Your task to perform on an android device: check android version Image 0: 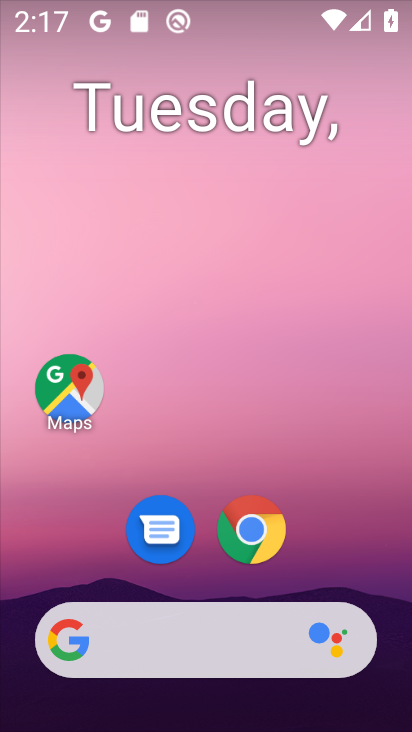
Step 0: drag from (364, 154) to (360, 60)
Your task to perform on an android device: check android version Image 1: 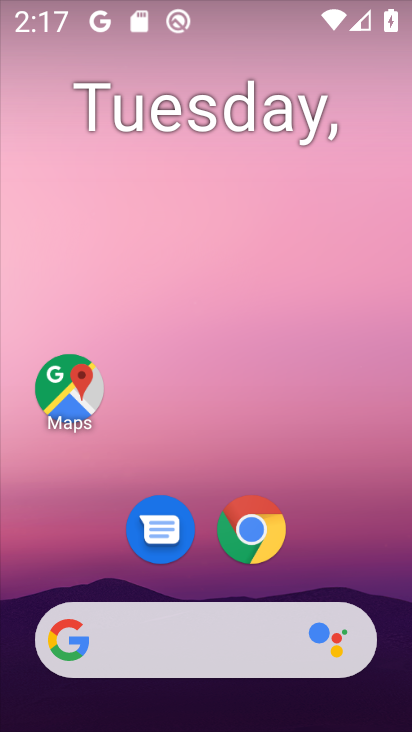
Step 1: click (363, 55)
Your task to perform on an android device: check android version Image 2: 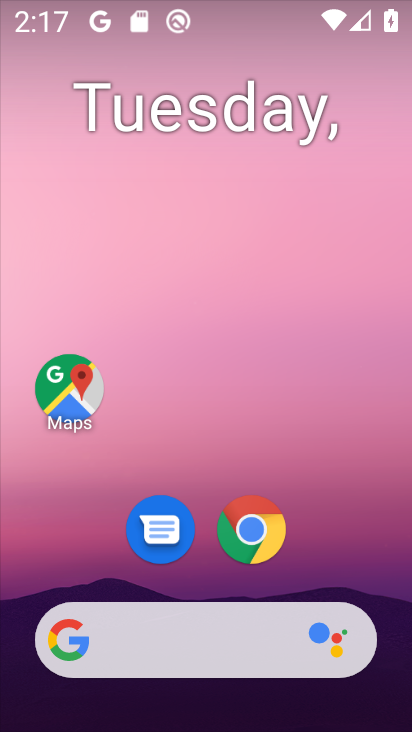
Step 2: drag from (392, 409) to (378, 154)
Your task to perform on an android device: check android version Image 3: 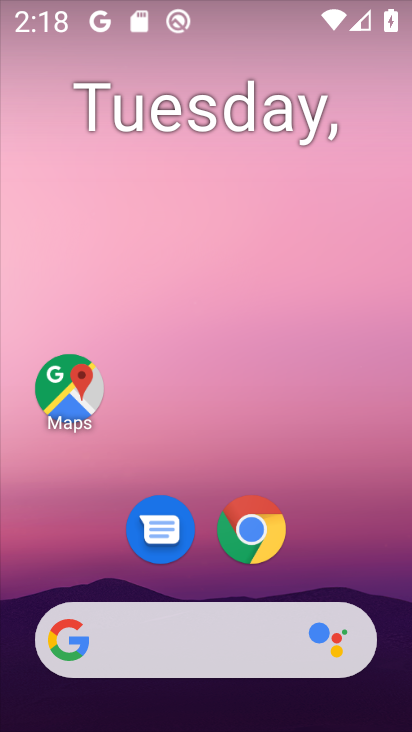
Step 3: drag from (397, 590) to (339, 107)
Your task to perform on an android device: check android version Image 4: 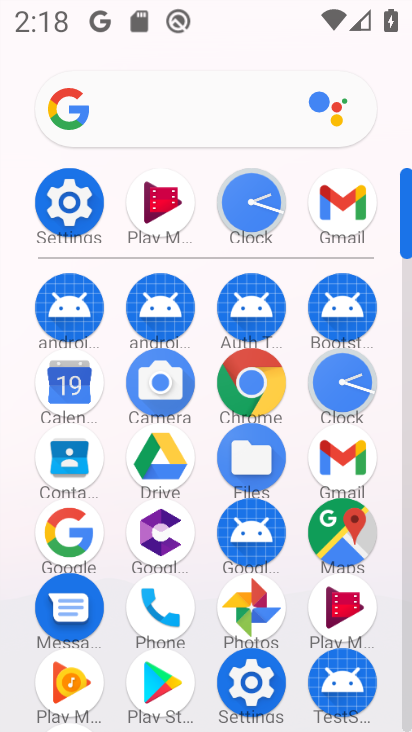
Step 4: click (68, 187)
Your task to perform on an android device: check android version Image 5: 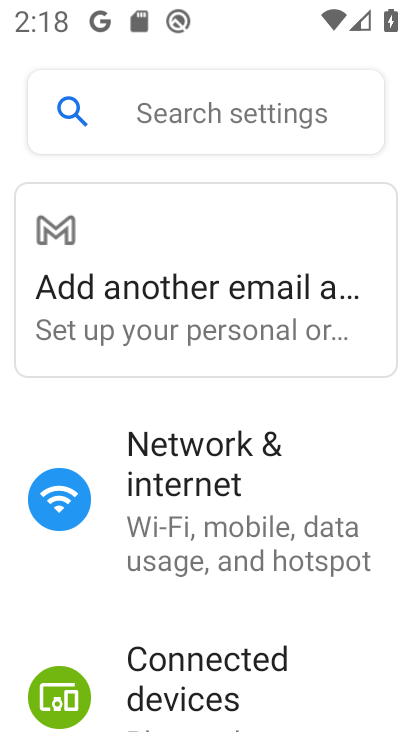
Step 5: drag from (362, 663) to (347, 287)
Your task to perform on an android device: check android version Image 6: 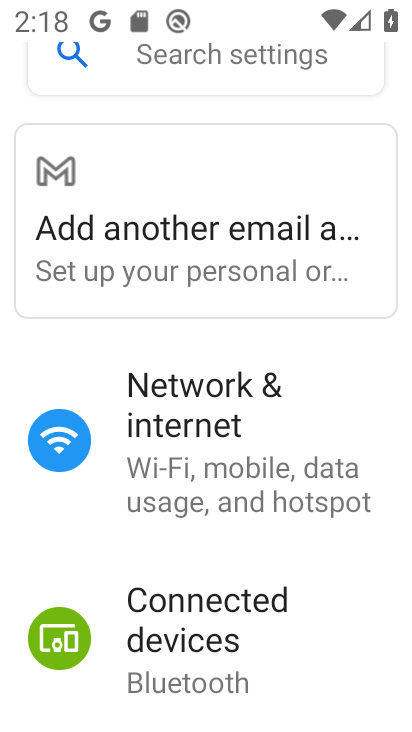
Step 6: drag from (315, 277) to (308, 206)
Your task to perform on an android device: check android version Image 7: 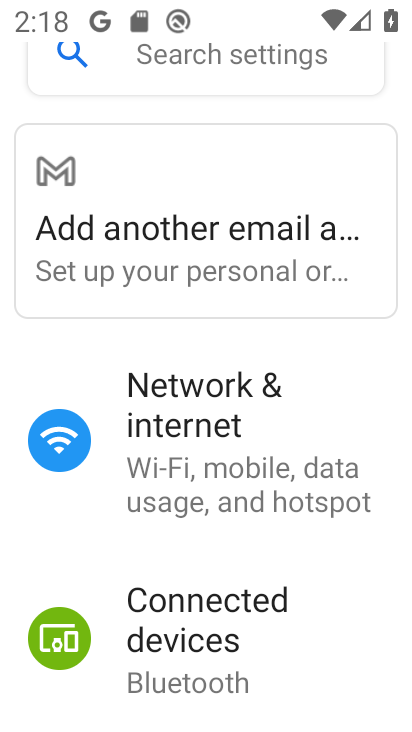
Step 7: drag from (329, 664) to (325, 258)
Your task to perform on an android device: check android version Image 8: 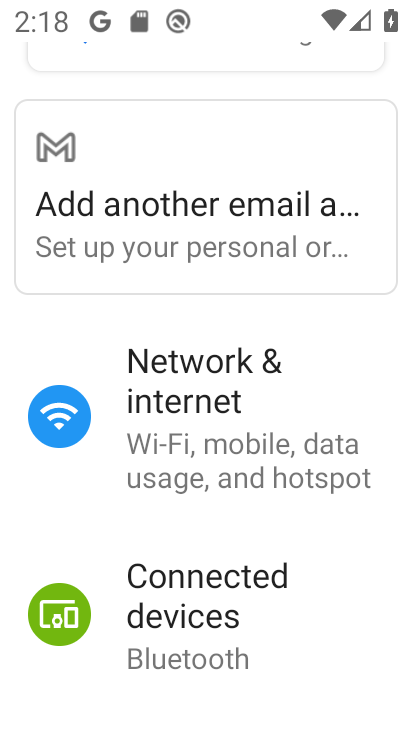
Step 8: drag from (348, 659) to (315, 245)
Your task to perform on an android device: check android version Image 9: 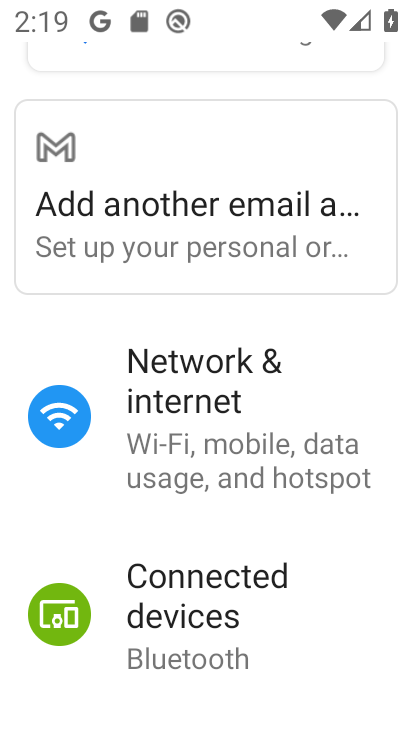
Step 9: drag from (381, 686) to (368, 212)
Your task to perform on an android device: check android version Image 10: 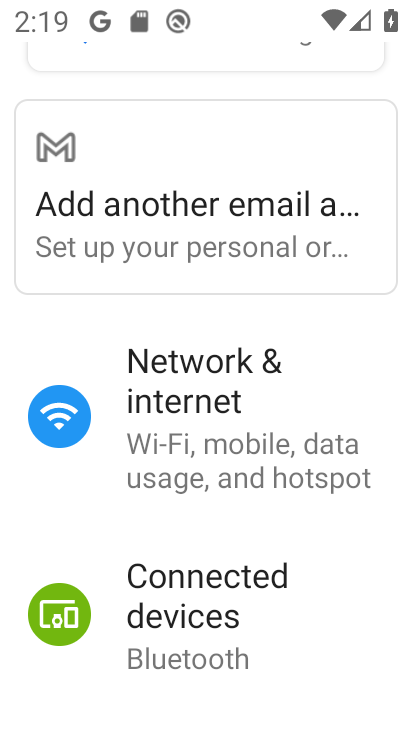
Step 10: drag from (341, 621) to (379, 182)
Your task to perform on an android device: check android version Image 11: 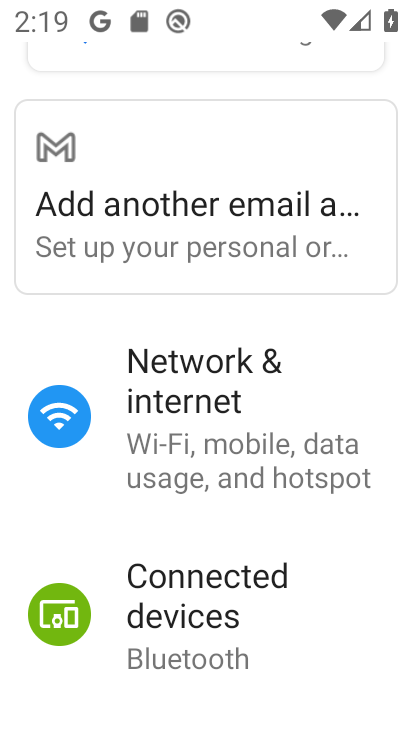
Step 11: drag from (342, 668) to (318, 165)
Your task to perform on an android device: check android version Image 12: 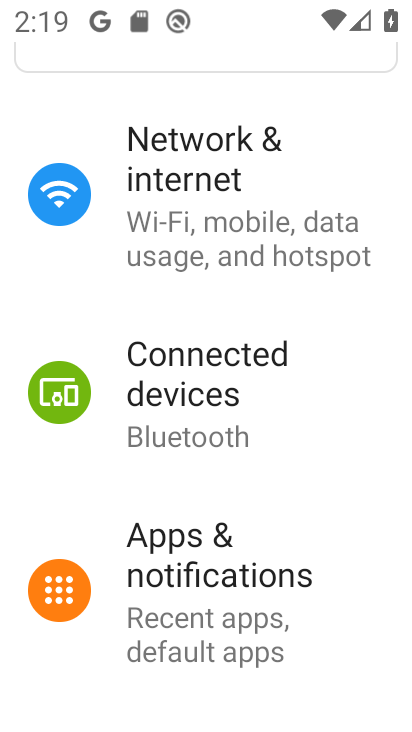
Step 12: drag from (315, 627) to (368, 172)
Your task to perform on an android device: check android version Image 13: 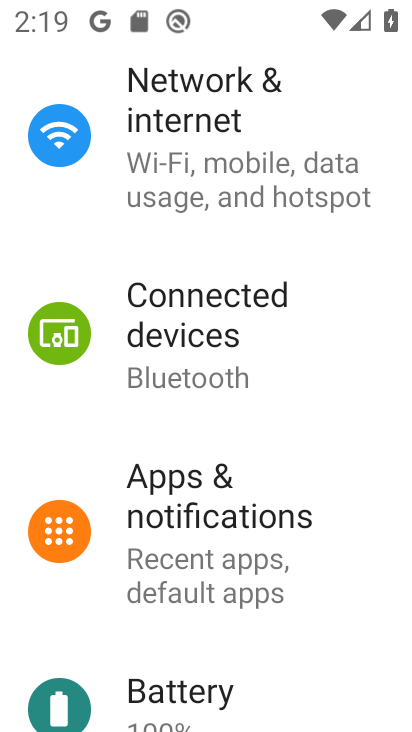
Step 13: drag from (319, 643) to (345, 215)
Your task to perform on an android device: check android version Image 14: 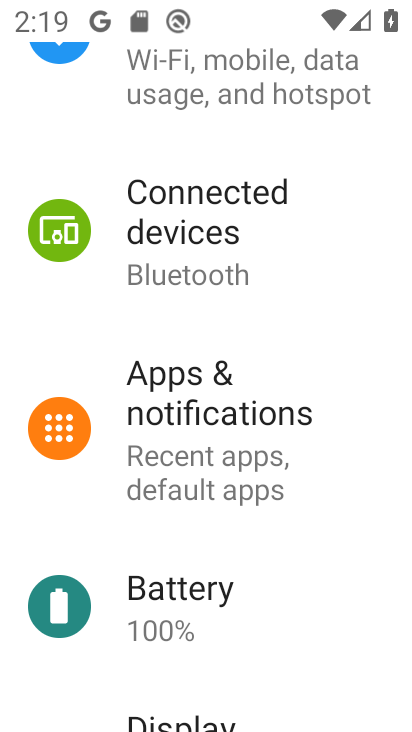
Step 14: drag from (334, 437) to (336, 269)
Your task to perform on an android device: check android version Image 15: 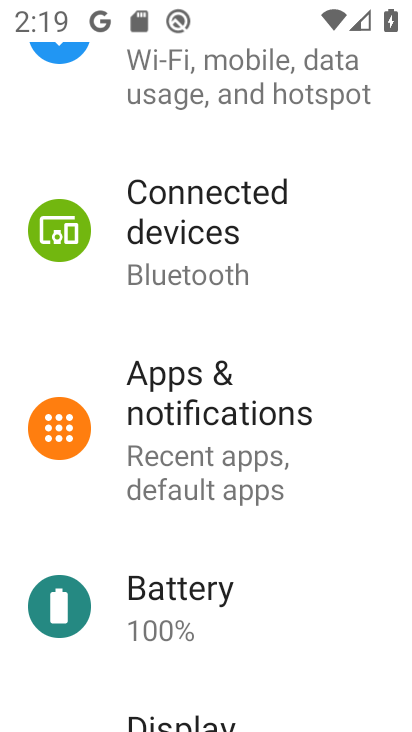
Step 15: drag from (367, 676) to (349, 170)
Your task to perform on an android device: check android version Image 16: 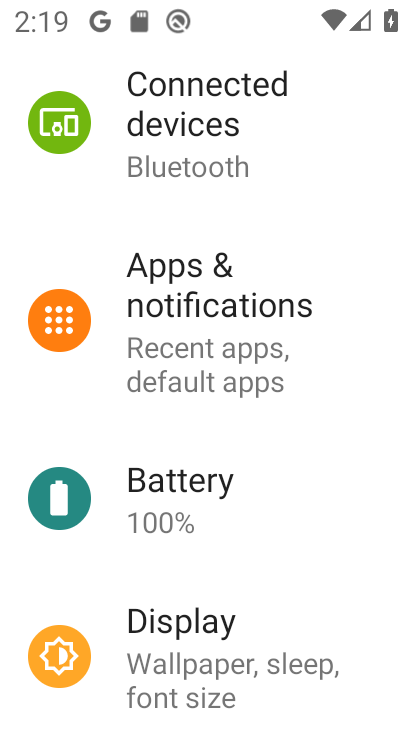
Step 16: drag from (379, 614) to (402, 116)
Your task to perform on an android device: check android version Image 17: 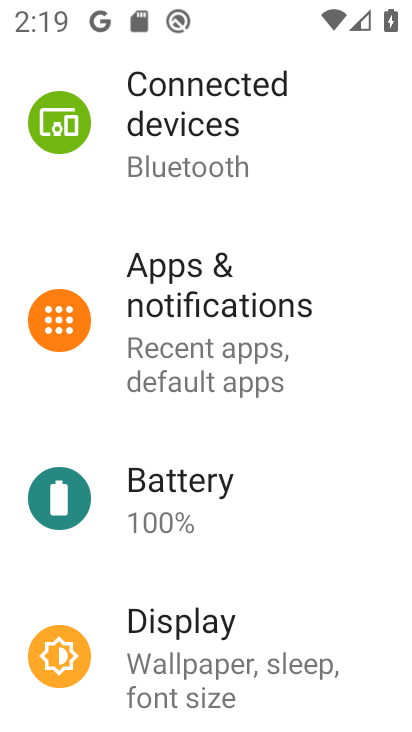
Step 17: drag from (337, 349) to (325, 28)
Your task to perform on an android device: check android version Image 18: 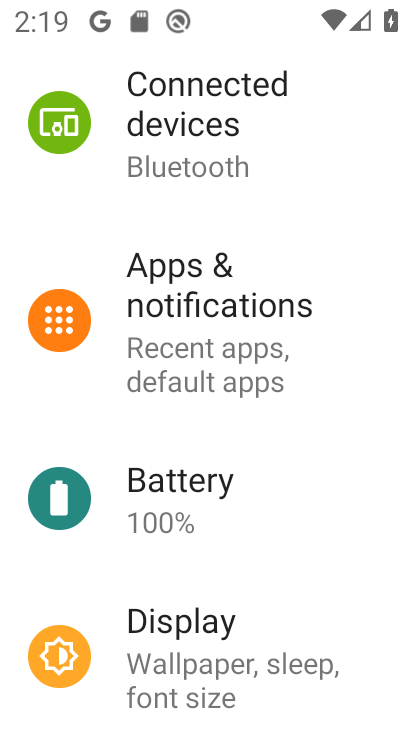
Step 18: drag from (330, 190) to (326, 142)
Your task to perform on an android device: check android version Image 19: 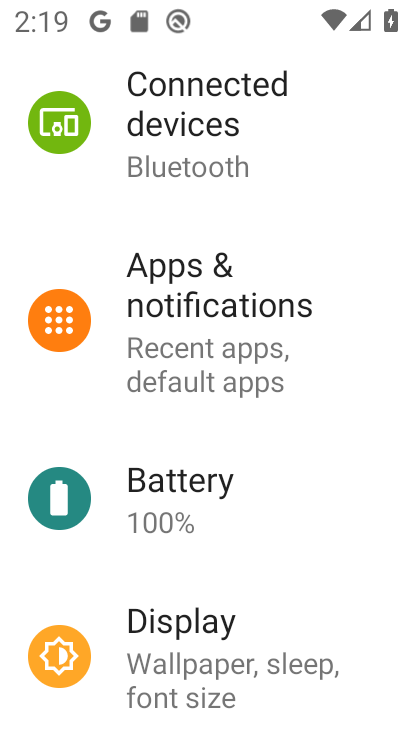
Step 19: drag from (346, 643) to (346, 330)
Your task to perform on an android device: check android version Image 20: 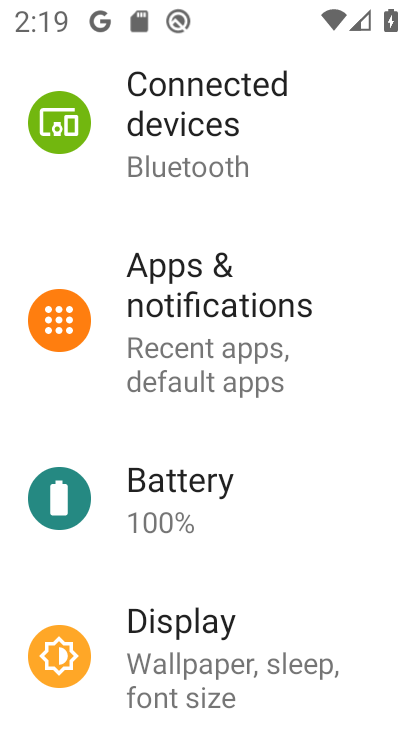
Step 20: drag from (362, 654) to (383, 99)
Your task to perform on an android device: check android version Image 21: 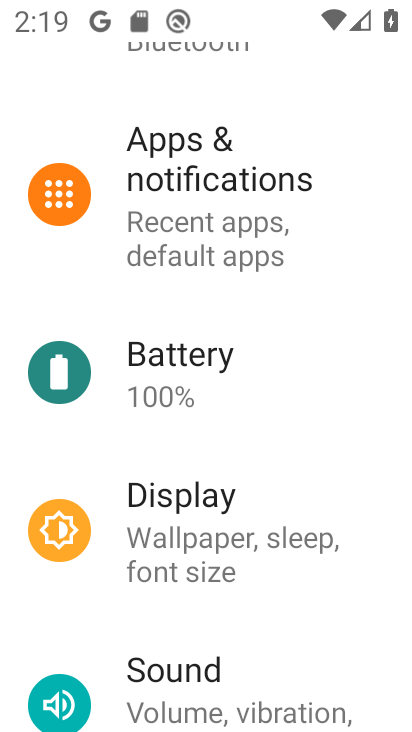
Step 21: drag from (361, 541) to (337, 204)
Your task to perform on an android device: check android version Image 22: 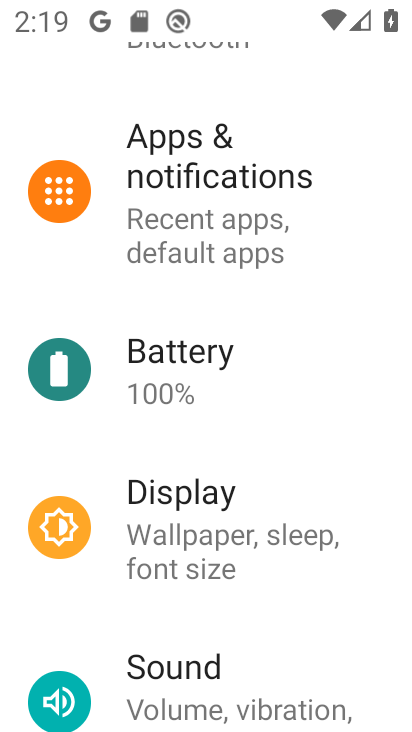
Step 22: drag from (323, 639) to (337, 237)
Your task to perform on an android device: check android version Image 23: 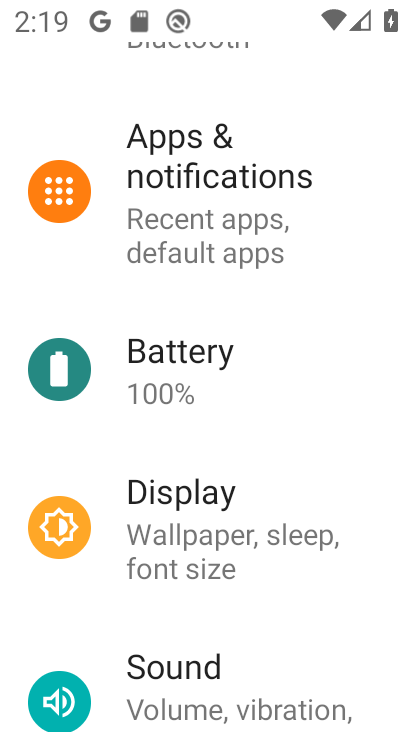
Step 23: drag from (361, 584) to (345, 121)
Your task to perform on an android device: check android version Image 24: 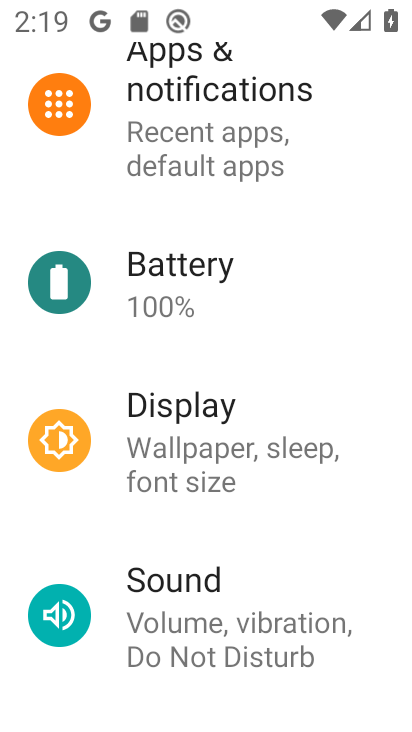
Step 24: drag from (376, 374) to (377, 102)
Your task to perform on an android device: check android version Image 25: 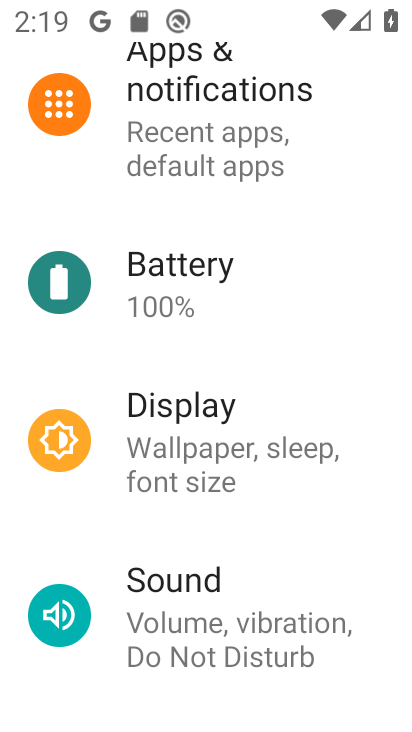
Step 25: drag from (362, 546) to (379, 145)
Your task to perform on an android device: check android version Image 26: 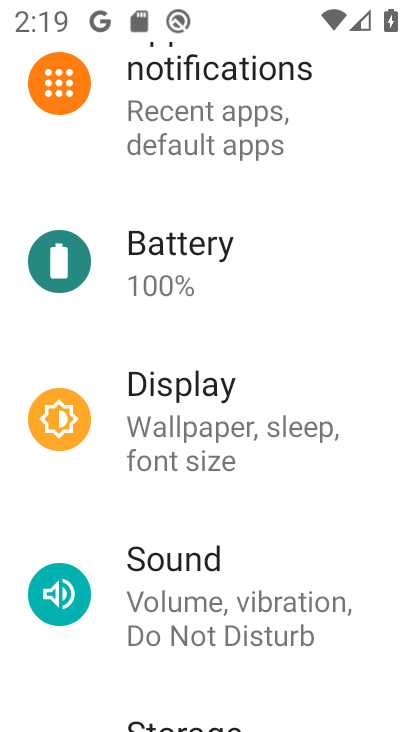
Step 26: drag from (369, 378) to (378, 175)
Your task to perform on an android device: check android version Image 27: 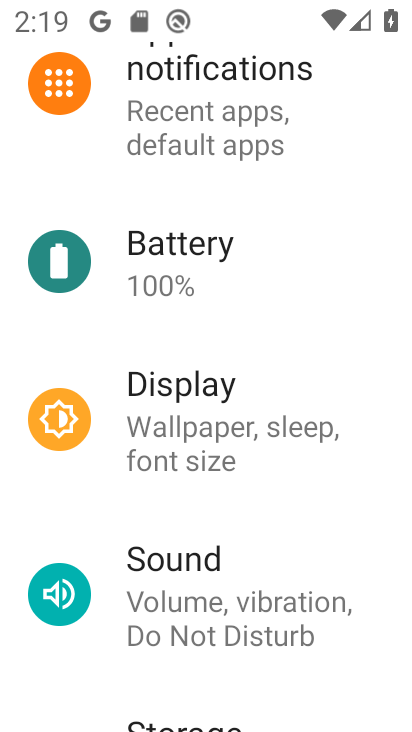
Step 27: drag from (339, 684) to (353, 245)
Your task to perform on an android device: check android version Image 28: 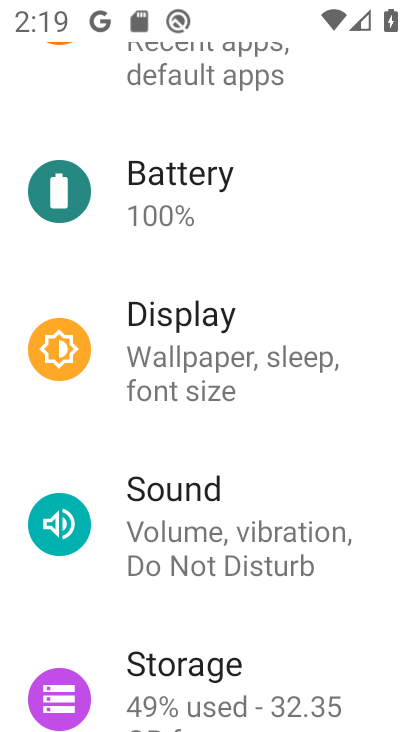
Step 28: drag from (376, 559) to (369, 218)
Your task to perform on an android device: check android version Image 29: 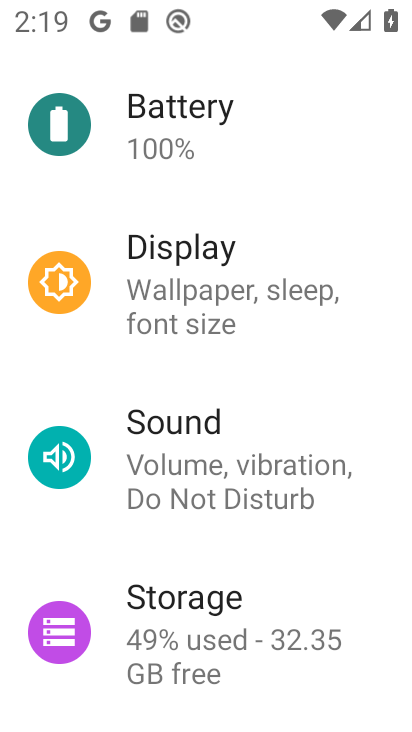
Step 29: drag from (367, 665) to (337, 279)
Your task to perform on an android device: check android version Image 30: 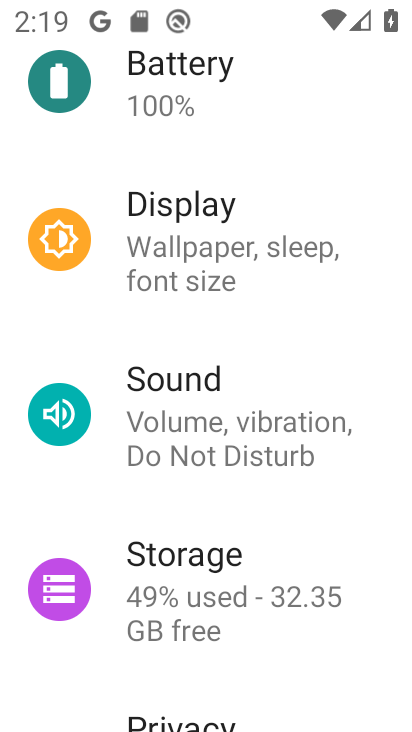
Step 30: drag from (366, 370) to (362, 220)
Your task to perform on an android device: check android version Image 31: 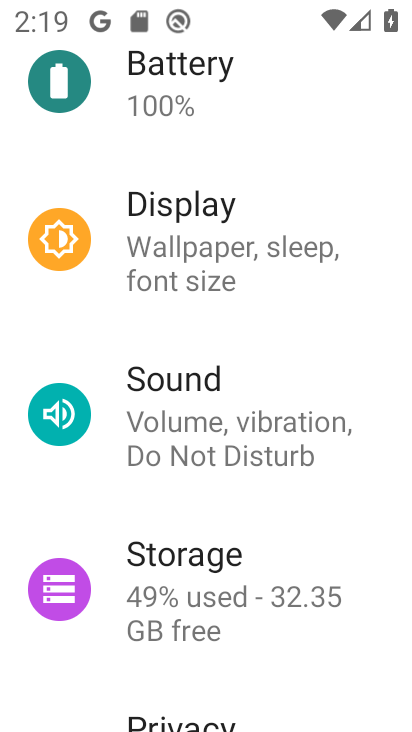
Step 31: drag from (373, 625) to (355, 149)
Your task to perform on an android device: check android version Image 32: 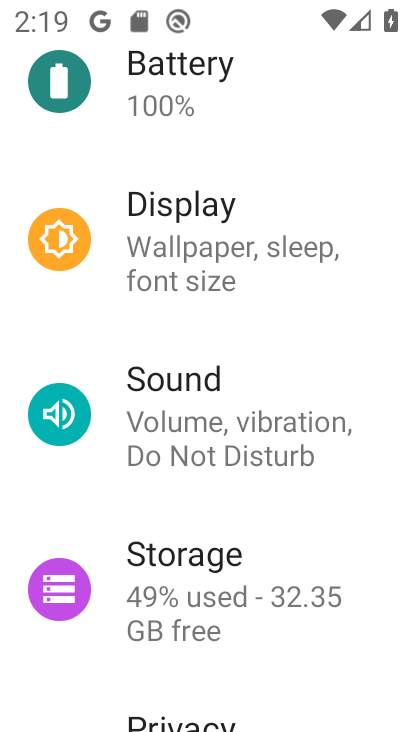
Step 32: drag from (361, 696) to (358, 235)
Your task to perform on an android device: check android version Image 33: 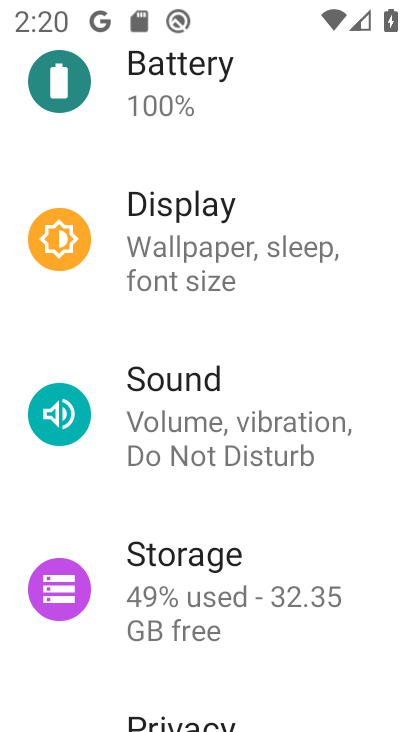
Step 33: drag from (360, 643) to (330, 187)
Your task to perform on an android device: check android version Image 34: 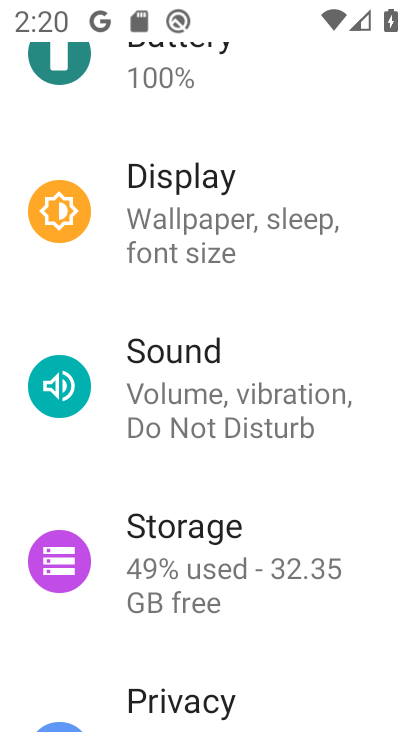
Step 34: drag from (376, 669) to (312, 161)
Your task to perform on an android device: check android version Image 35: 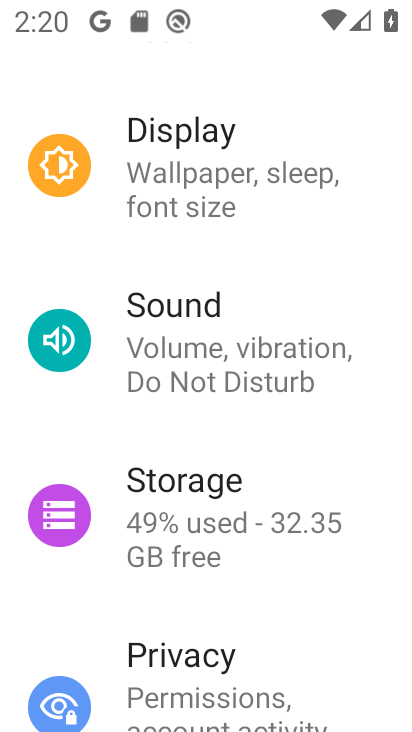
Step 35: drag from (349, 410) to (329, 135)
Your task to perform on an android device: check android version Image 36: 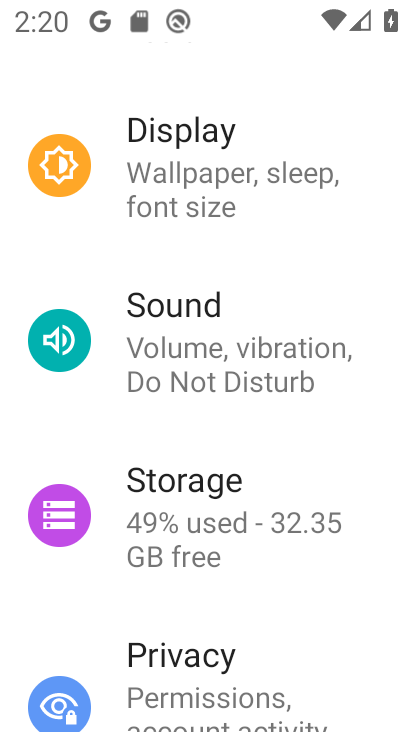
Step 36: drag from (356, 620) to (344, 149)
Your task to perform on an android device: check android version Image 37: 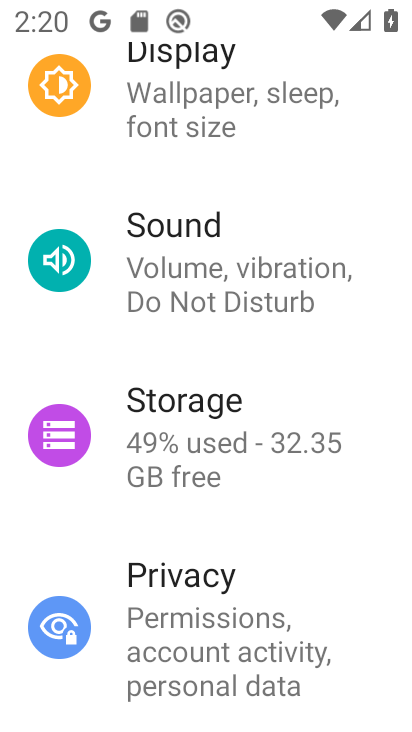
Step 37: drag from (346, 508) to (314, 215)
Your task to perform on an android device: check android version Image 38: 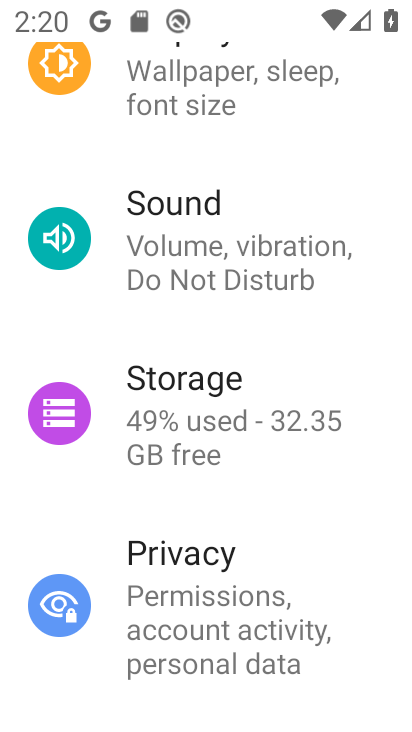
Step 38: drag from (343, 350) to (329, 167)
Your task to perform on an android device: check android version Image 39: 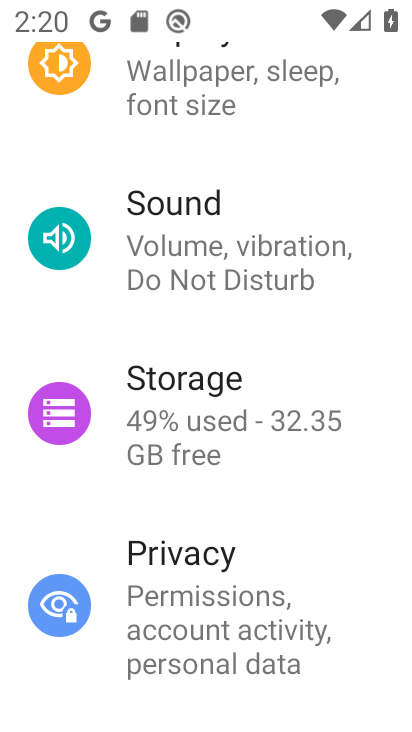
Step 39: drag from (347, 606) to (311, 135)
Your task to perform on an android device: check android version Image 40: 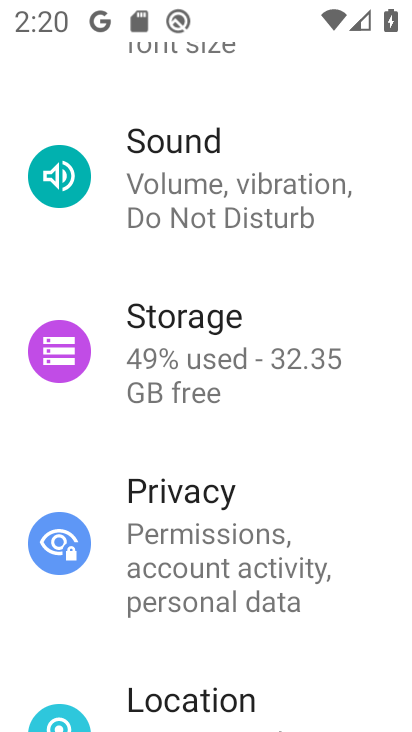
Step 40: drag from (353, 614) to (316, 174)
Your task to perform on an android device: check android version Image 41: 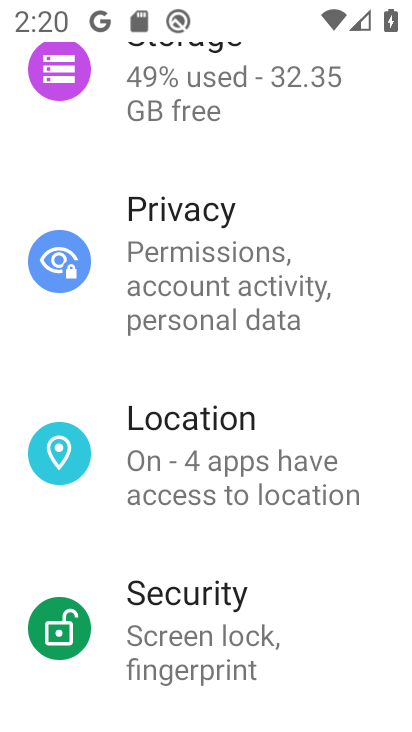
Step 41: drag from (358, 618) to (328, 153)
Your task to perform on an android device: check android version Image 42: 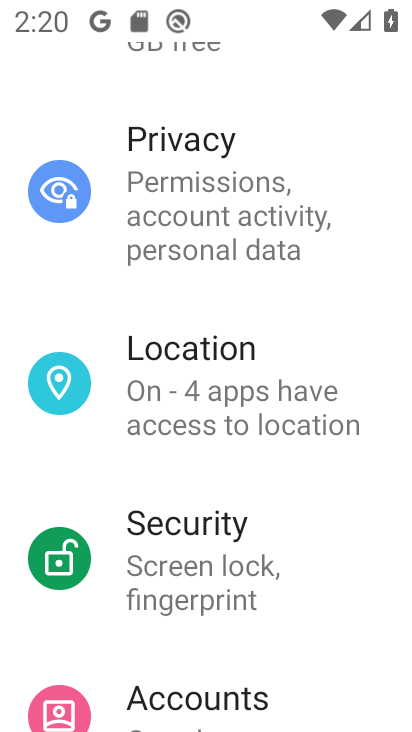
Step 42: drag from (320, 332) to (291, 166)
Your task to perform on an android device: check android version Image 43: 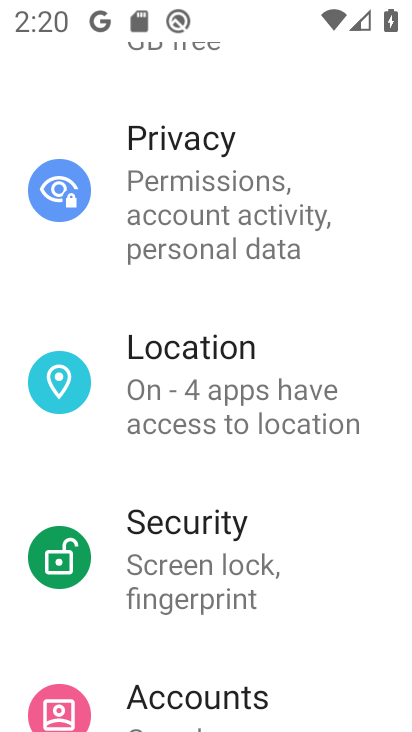
Step 43: drag from (310, 377) to (256, 141)
Your task to perform on an android device: check android version Image 44: 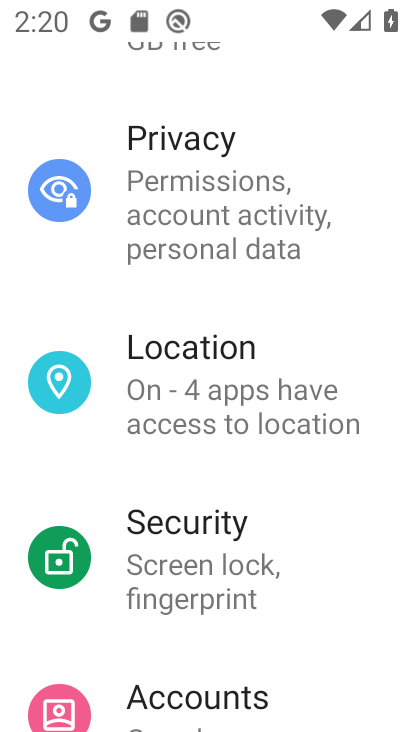
Step 44: drag from (352, 677) to (355, 133)
Your task to perform on an android device: check android version Image 45: 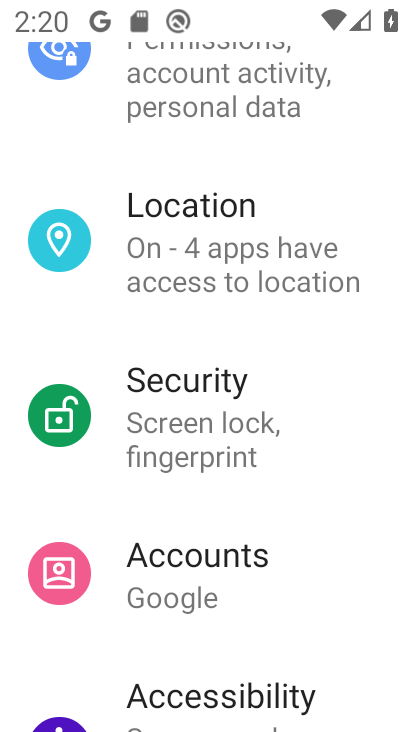
Step 45: drag from (370, 611) to (368, 151)
Your task to perform on an android device: check android version Image 46: 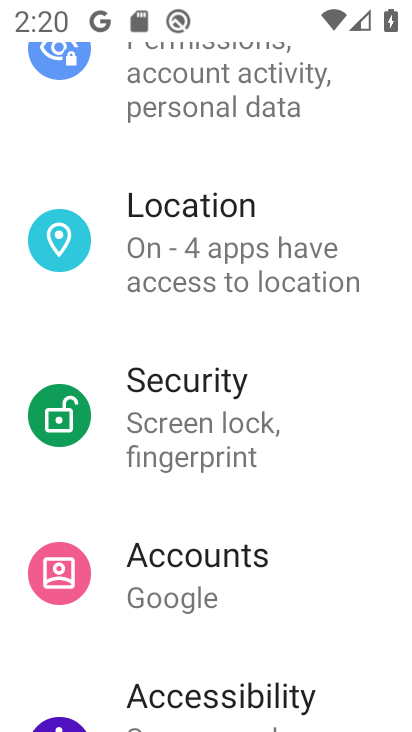
Step 46: drag from (374, 541) to (332, 24)
Your task to perform on an android device: check android version Image 47: 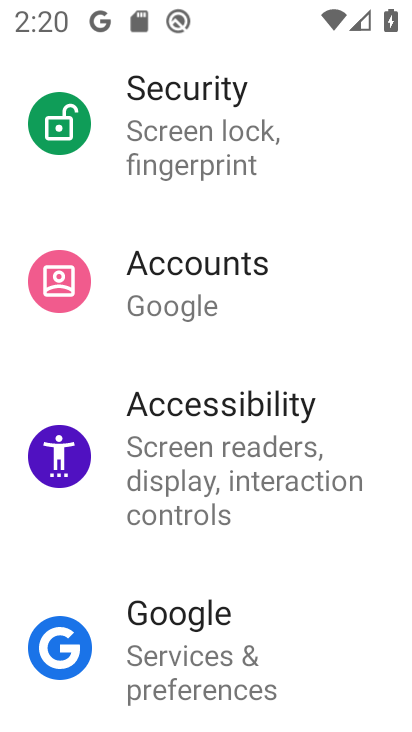
Step 47: drag from (339, 614) to (376, 290)
Your task to perform on an android device: check android version Image 48: 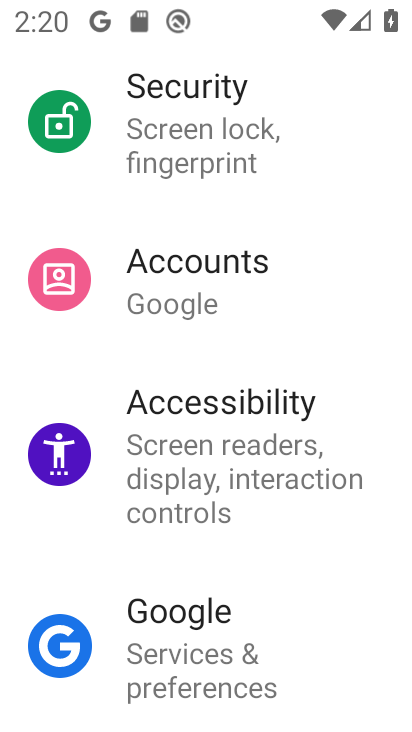
Step 48: drag from (334, 638) to (290, 138)
Your task to perform on an android device: check android version Image 49: 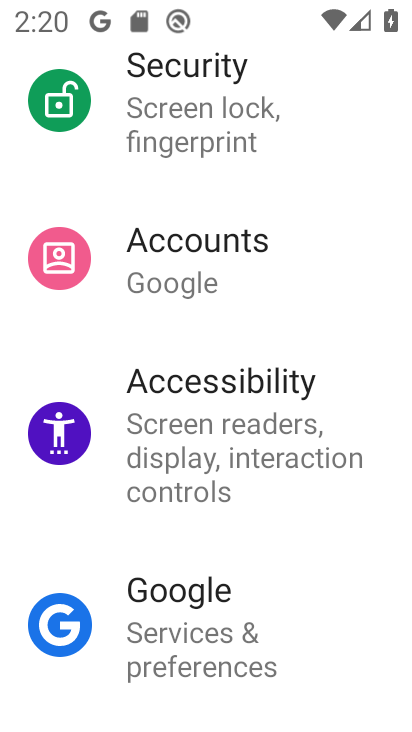
Step 49: drag from (309, 495) to (296, 106)
Your task to perform on an android device: check android version Image 50: 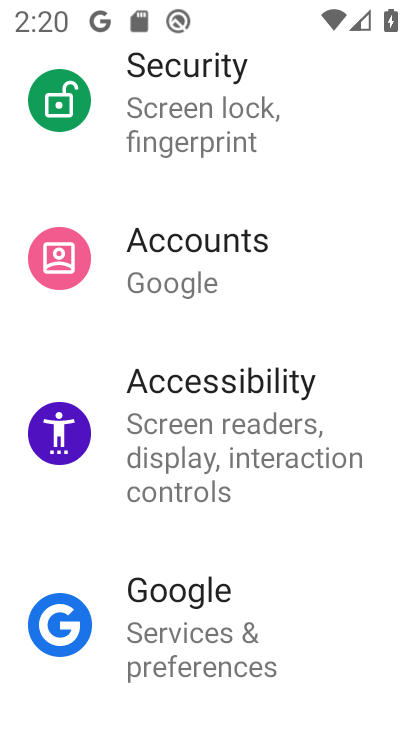
Step 50: drag from (352, 586) to (349, 161)
Your task to perform on an android device: check android version Image 51: 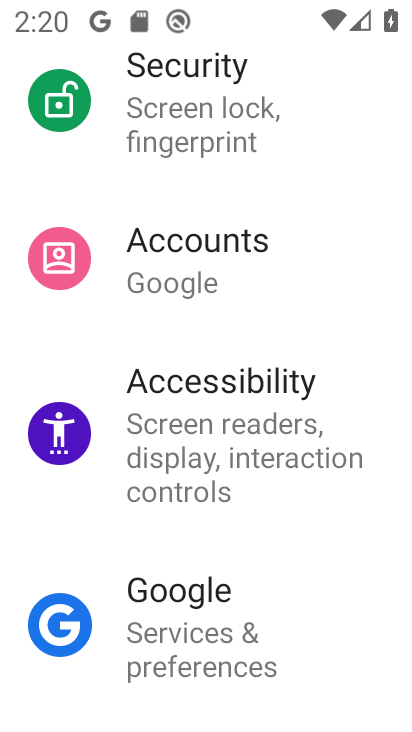
Step 51: drag from (374, 542) to (339, 156)
Your task to perform on an android device: check android version Image 52: 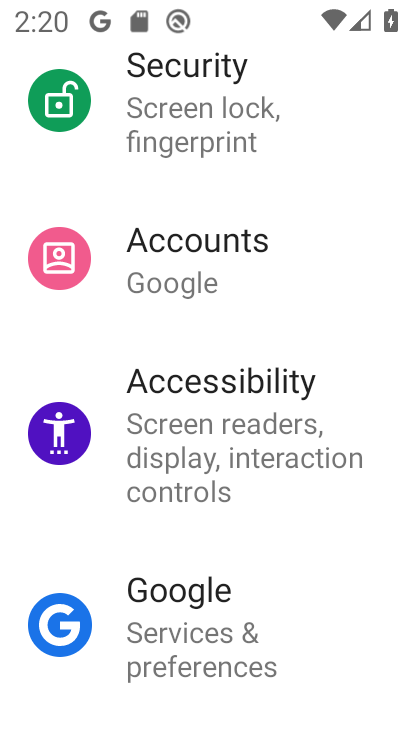
Step 52: drag from (368, 630) to (396, 121)
Your task to perform on an android device: check android version Image 53: 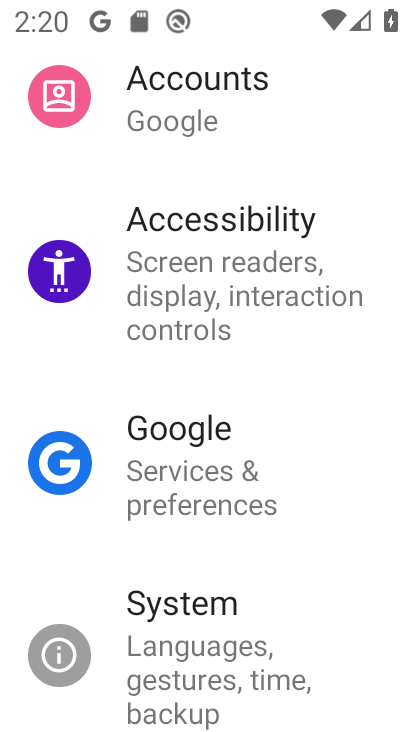
Step 53: drag from (358, 700) to (386, 180)
Your task to perform on an android device: check android version Image 54: 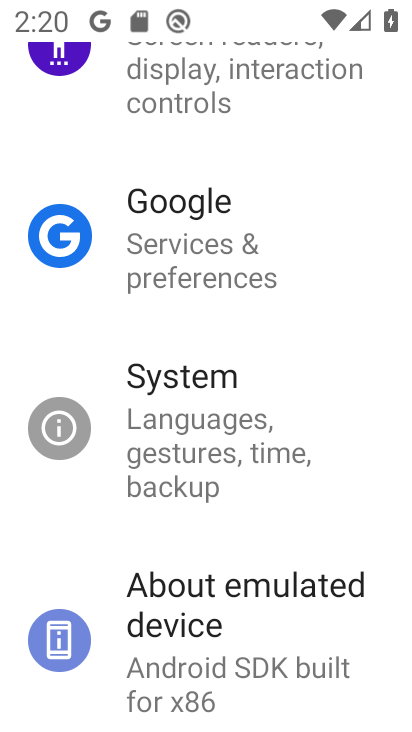
Step 54: click (160, 607)
Your task to perform on an android device: check android version Image 55: 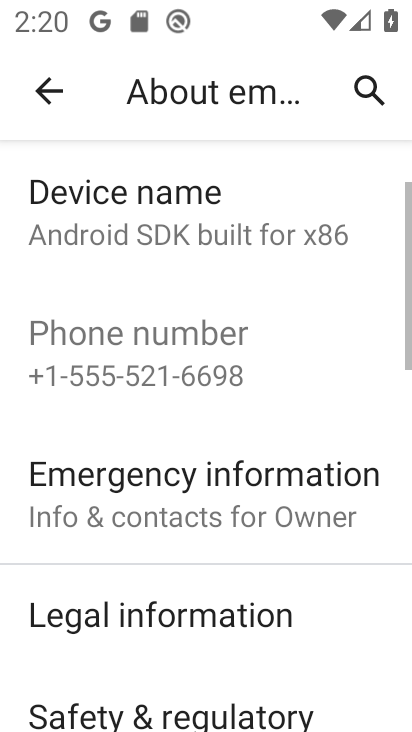
Step 55: drag from (411, 260) to (378, 220)
Your task to perform on an android device: check android version Image 56: 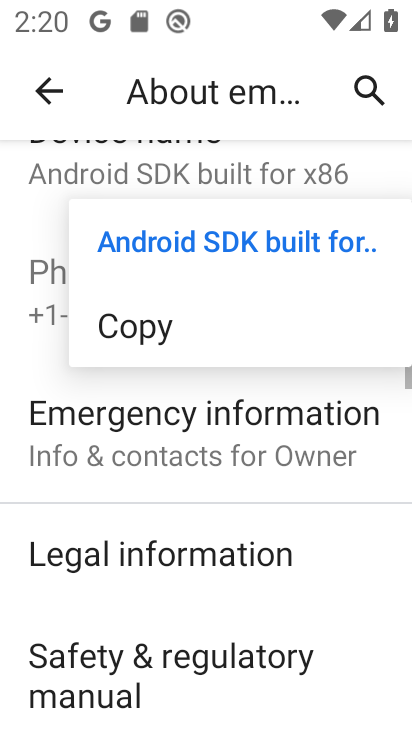
Step 56: click (403, 438)
Your task to perform on an android device: check android version Image 57: 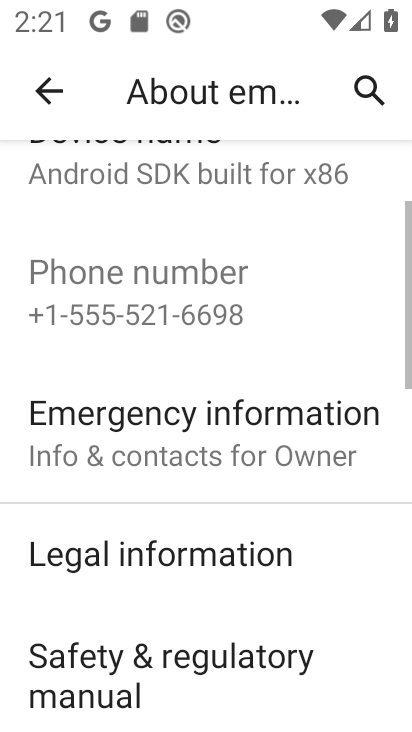
Step 57: drag from (409, 364) to (389, 208)
Your task to perform on an android device: check android version Image 58: 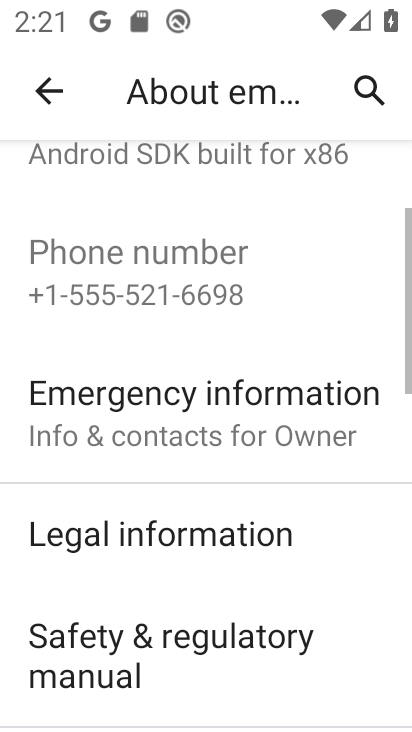
Step 58: drag from (408, 353) to (401, 187)
Your task to perform on an android device: check android version Image 59: 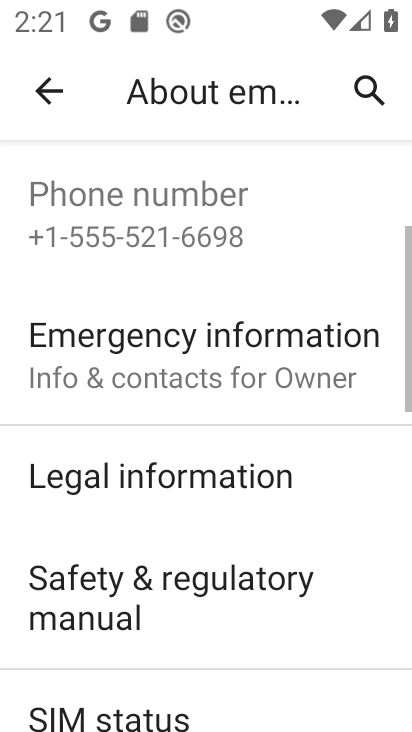
Step 59: drag from (407, 340) to (392, 191)
Your task to perform on an android device: check android version Image 60: 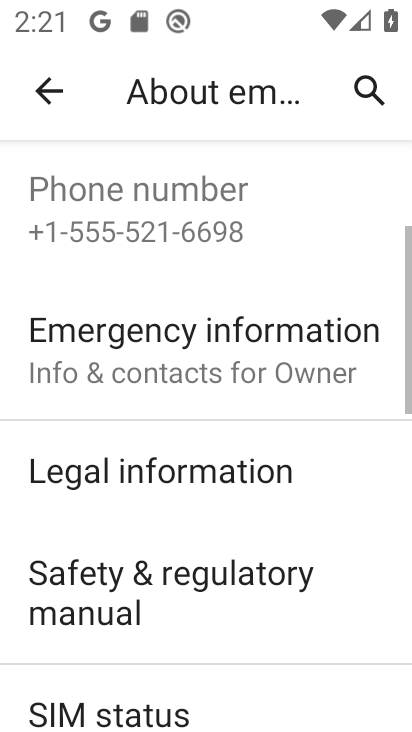
Step 60: drag from (411, 301) to (394, 145)
Your task to perform on an android device: check android version Image 61: 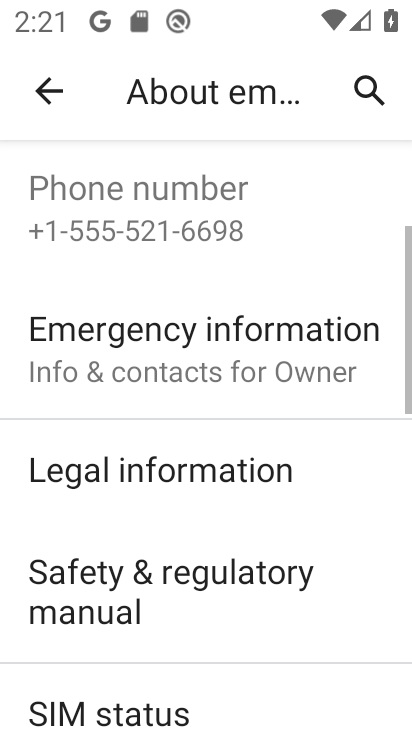
Step 61: drag from (406, 386) to (386, 180)
Your task to perform on an android device: check android version Image 62: 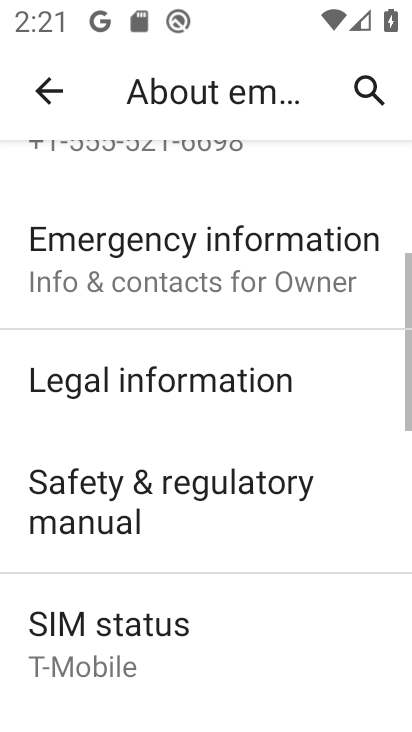
Step 62: drag from (410, 345) to (386, 160)
Your task to perform on an android device: check android version Image 63: 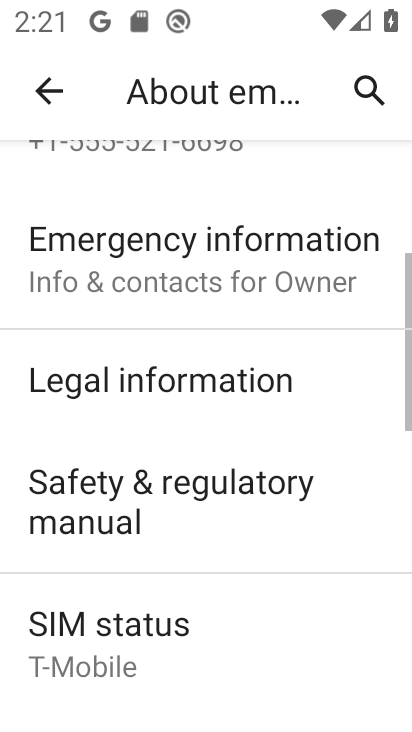
Step 63: click (405, 410)
Your task to perform on an android device: check android version Image 64: 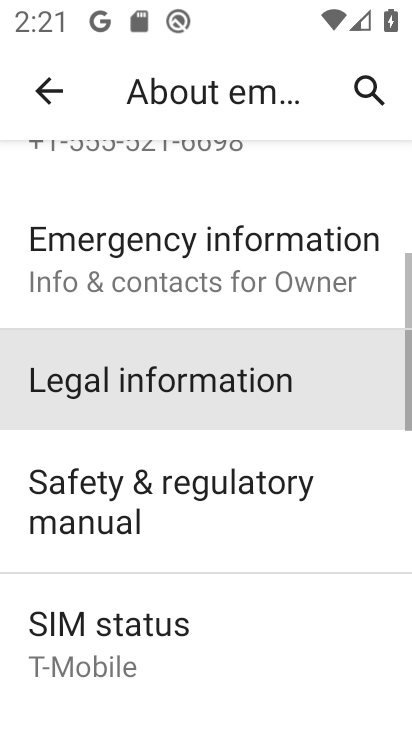
Step 64: drag from (408, 384) to (395, 175)
Your task to perform on an android device: check android version Image 65: 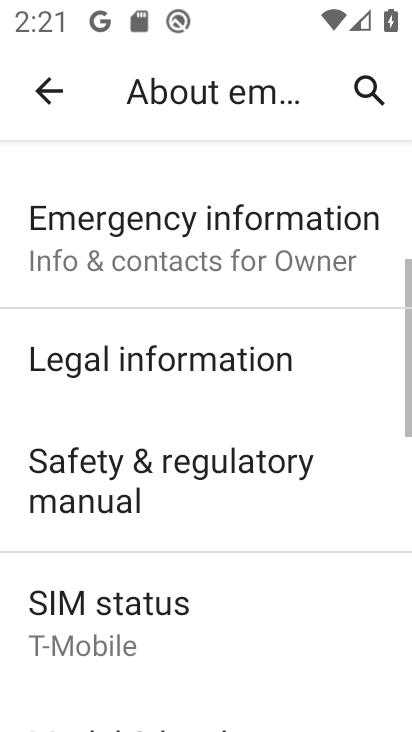
Step 65: drag from (409, 430) to (385, 170)
Your task to perform on an android device: check android version Image 66: 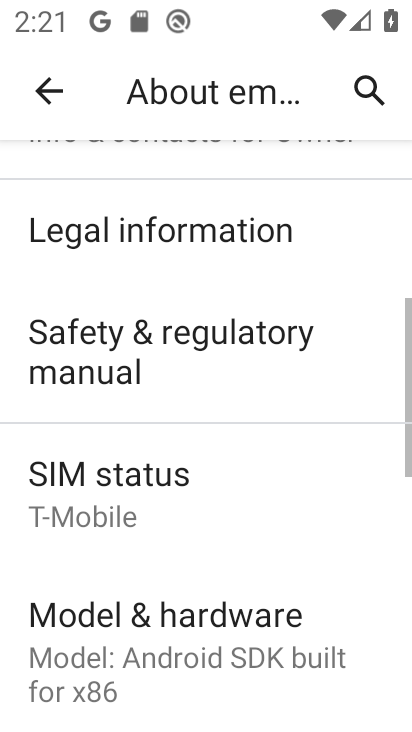
Step 66: drag from (405, 461) to (384, 239)
Your task to perform on an android device: check android version Image 67: 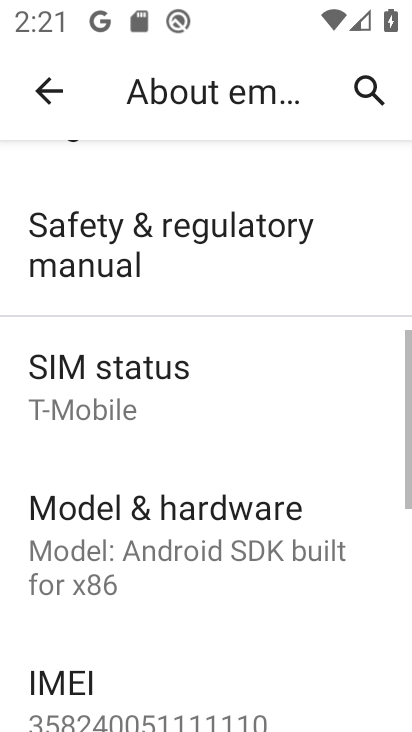
Step 67: drag from (408, 474) to (379, 200)
Your task to perform on an android device: check android version Image 68: 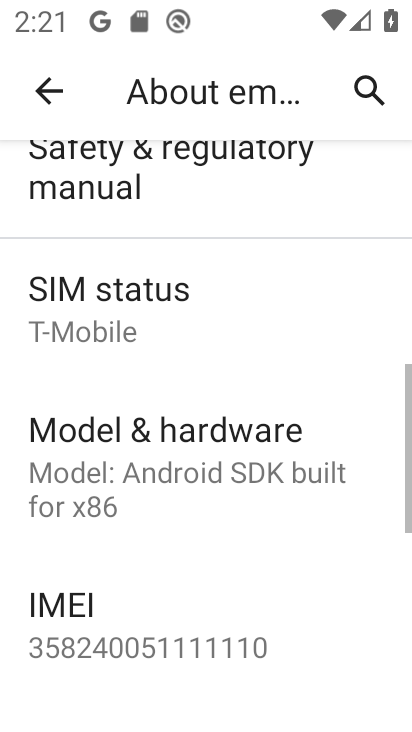
Step 68: drag from (407, 499) to (392, 91)
Your task to perform on an android device: check android version Image 69: 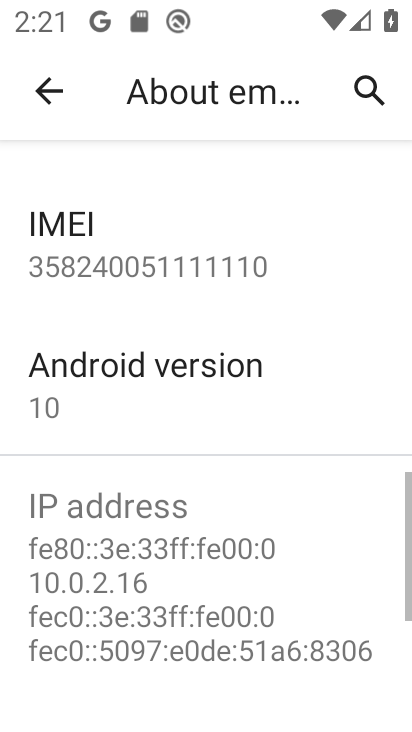
Step 69: click (95, 360)
Your task to perform on an android device: check android version Image 70: 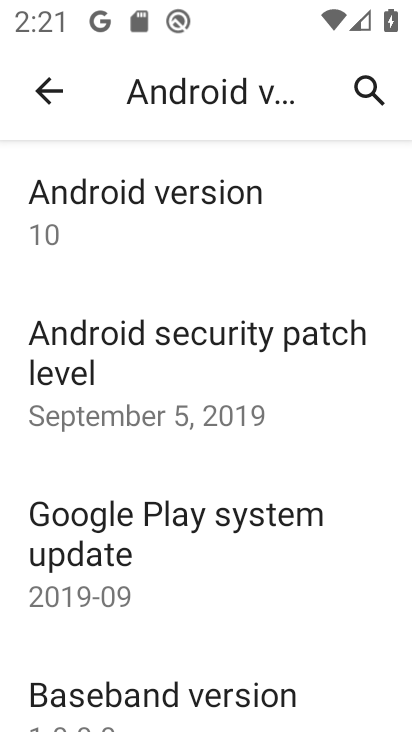
Step 70: click (48, 194)
Your task to perform on an android device: check android version Image 71: 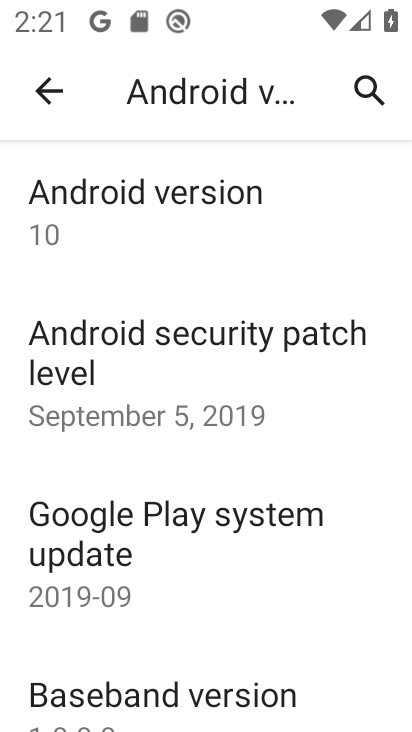
Step 71: click (130, 200)
Your task to perform on an android device: check android version Image 72: 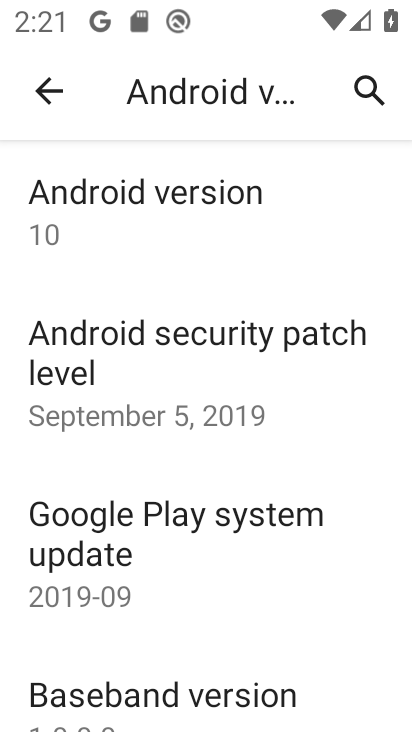
Step 72: task complete